Your task to perform on an android device: Go to Yahoo.com Image 0: 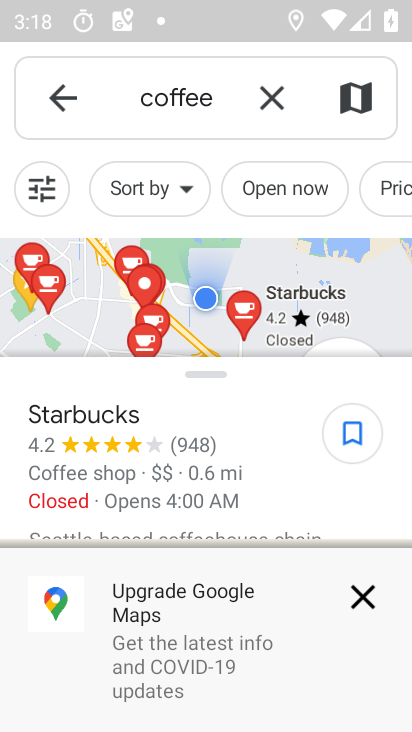
Step 0: press home button
Your task to perform on an android device: Go to Yahoo.com Image 1: 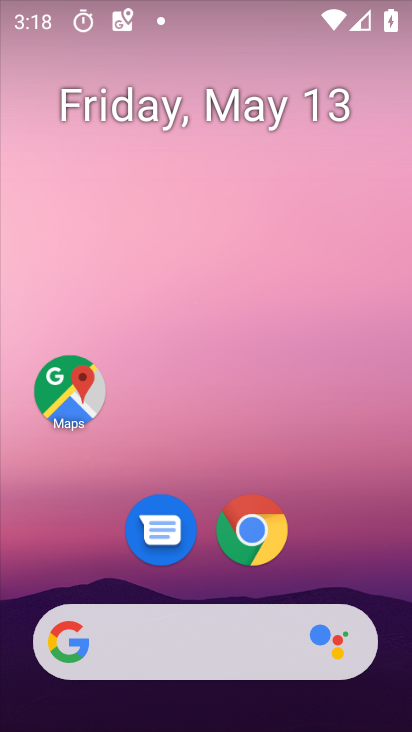
Step 1: click (265, 534)
Your task to perform on an android device: Go to Yahoo.com Image 2: 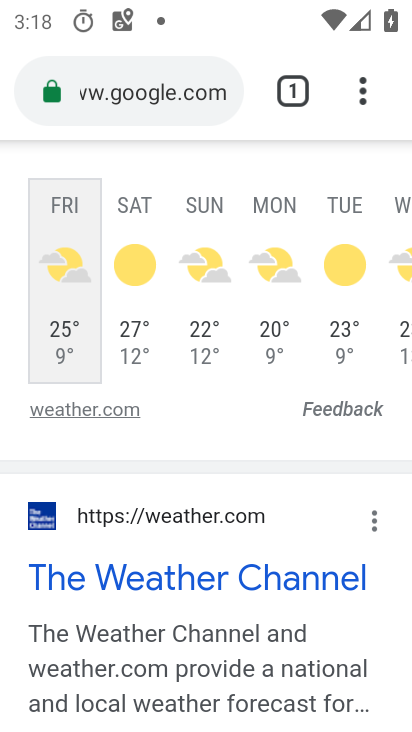
Step 2: click (206, 104)
Your task to perform on an android device: Go to Yahoo.com Image 3: 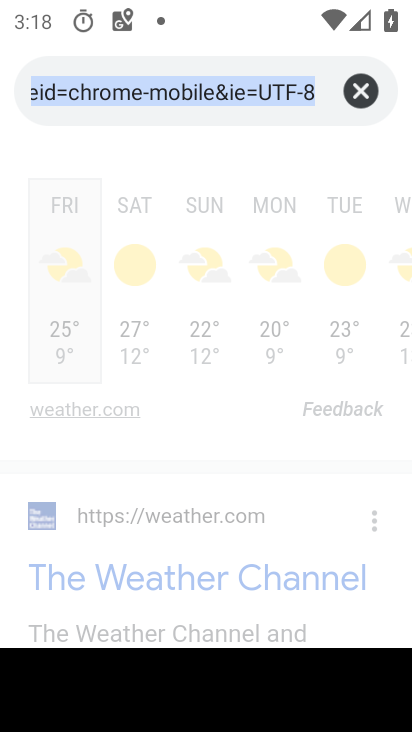
Step 3: type "yahoo.com"
Your task to perform on an android device: Go to Yahoo.com Image 4: 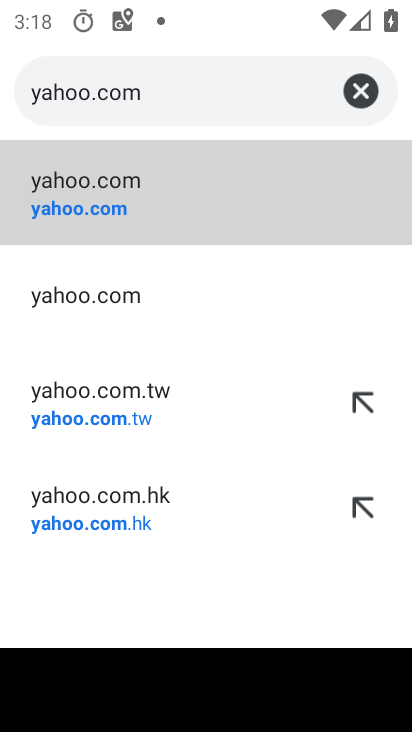
Step 4: click (58, 209)
Your task to perform on an android device: Go to Yahoo.com Image 5: 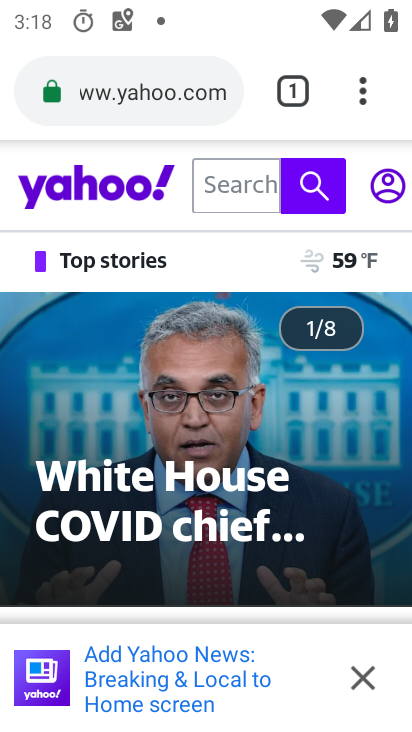
Step 5: task complete